Your task to perform on an android device: Go to Maps Image 0: 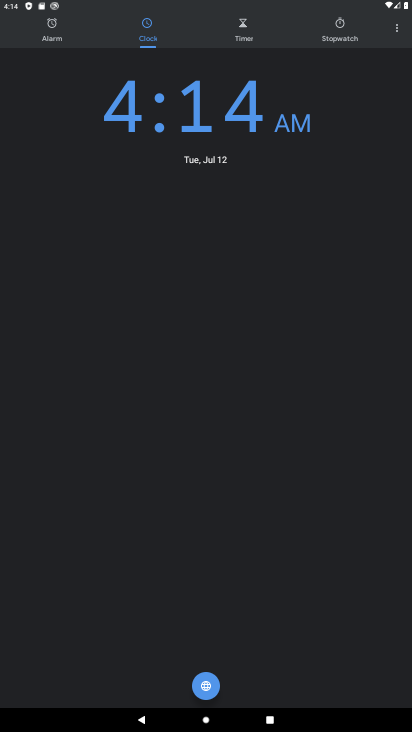
Step 0: press home button
Your task to perform on an android device: Go to Maps Image 1: 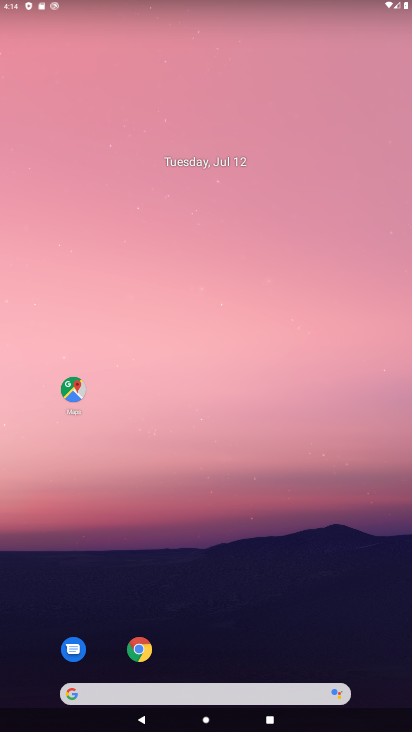
Step 1: click (72, 389)
Your task to perform on an android device: Go to Maps Image 2: 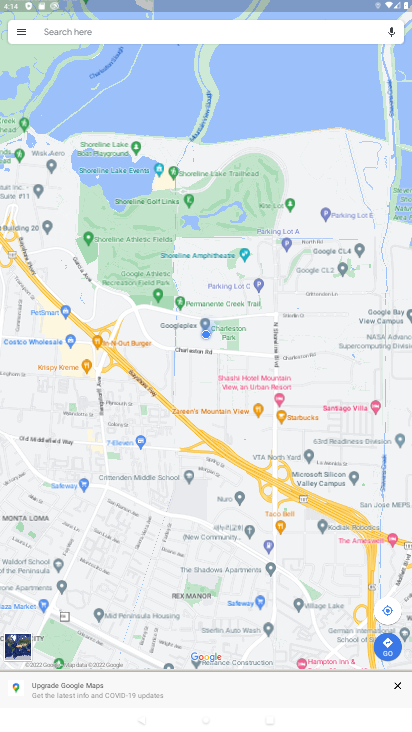
Step 2: task complete